Your task to perform on an android device: turn on data saver in the chrome app Image 0: 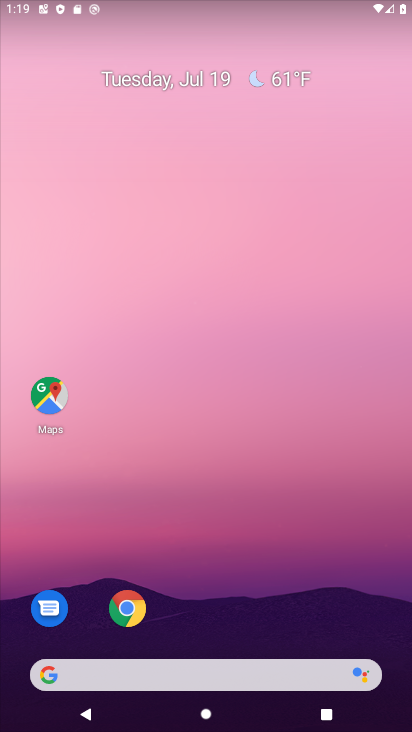
Step 0: drag from (218, 619) to (205, 83)
Your task to perform on an android device: turn on data saver in the chrome app Image 1: 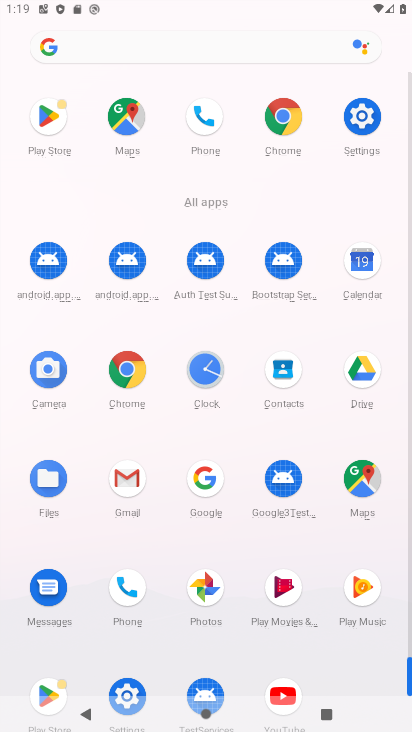
Step 1: click (128, 370)
Your task to perform on an android device: turn on data saver in the chrome app Image 2: 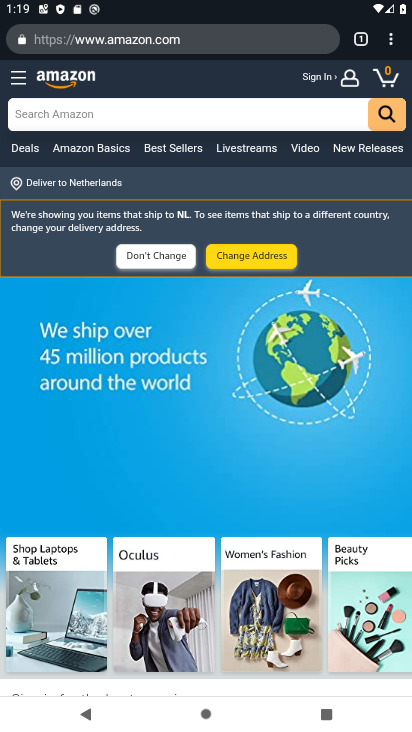
Step 2: click (391, 39)
Your task to perform on an android device: turn on data saver in the chrome app Image 3: 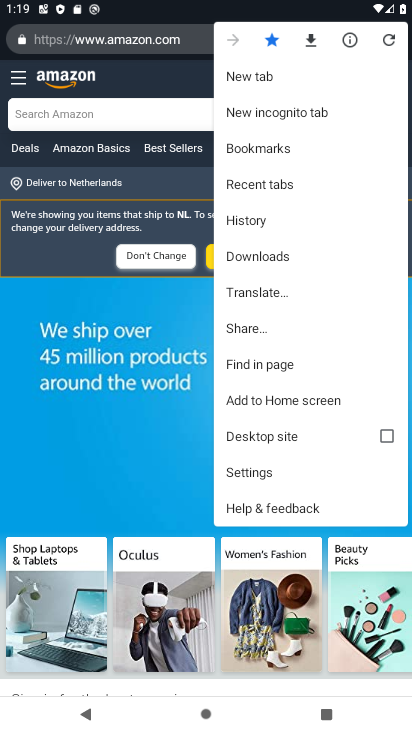
Step 3: click (266, 462)
Your task to perform on an android device: turn on data saver in the chrome app Image 4: 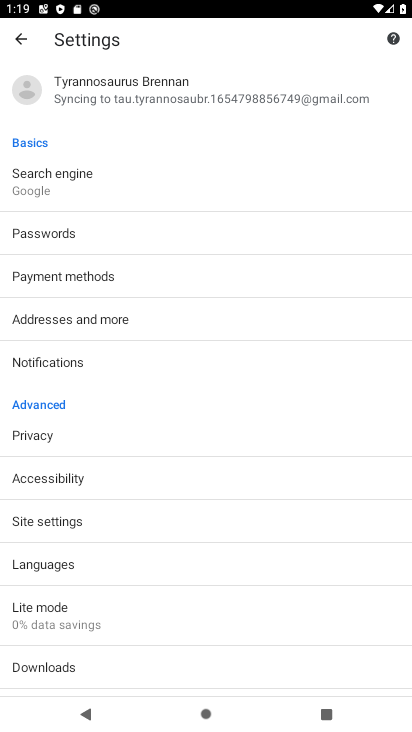
Step 4: click (81, 617)
Your task to perform on an android device: turn on data saver in the chrome app Image 5: 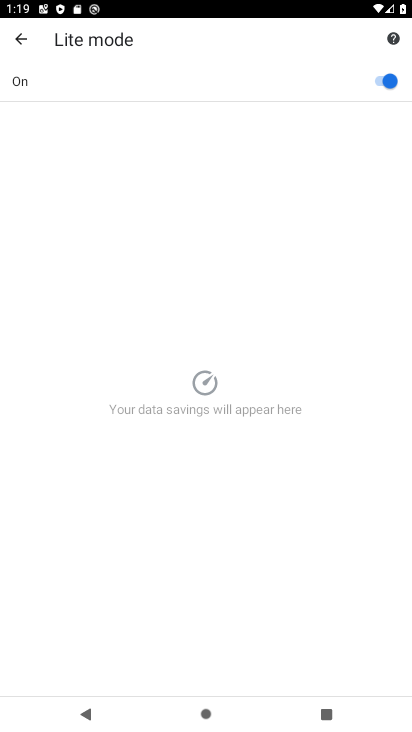
Step 5: task complete